Your task to perform on an android device: change timer sound Image 0: 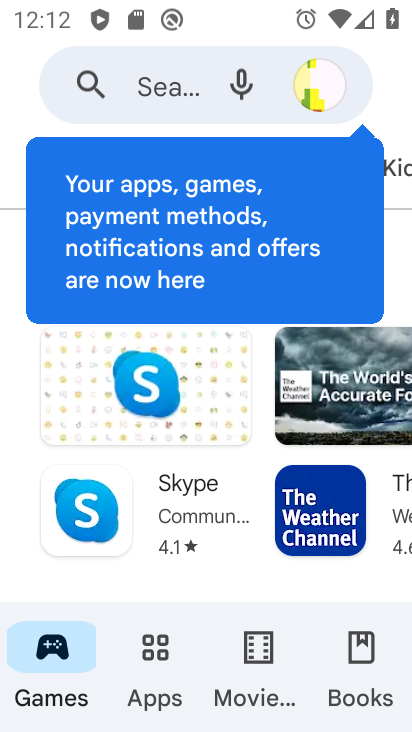
Step 0: press home button
Your task to perform on an android device: change timer sound Image 1: 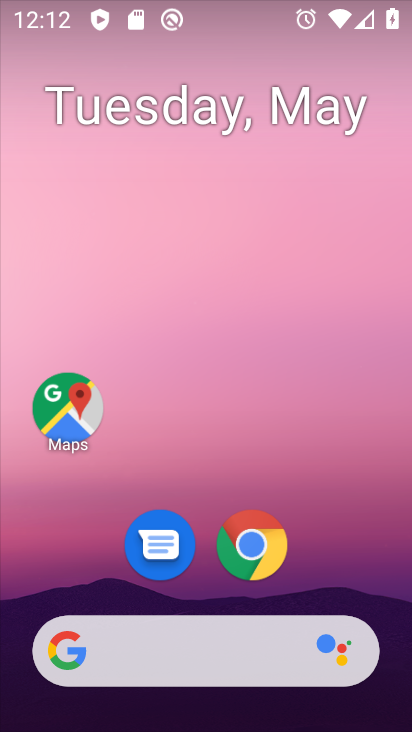
Step 1: drag from (359, 555) to (247, 145)
Your task to perform on an android device: change timer sound Image 2: 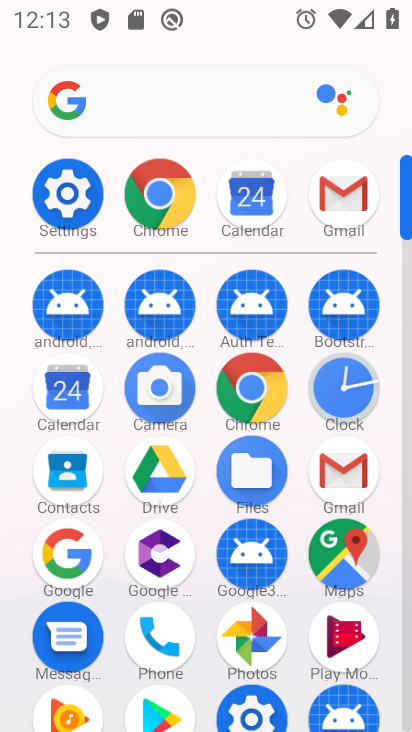
Step 2: click (338, 375)
Your task to perform on an android device: change timer sound Image 3: 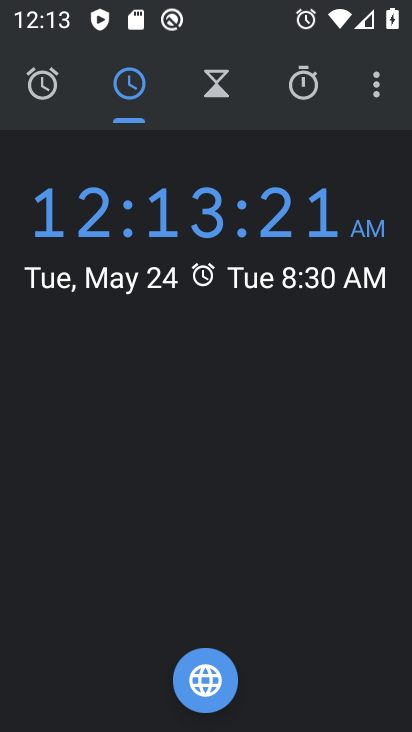
Step 3: click (366, 75)
Your task to perform on an android device: change timer sound Image 4: 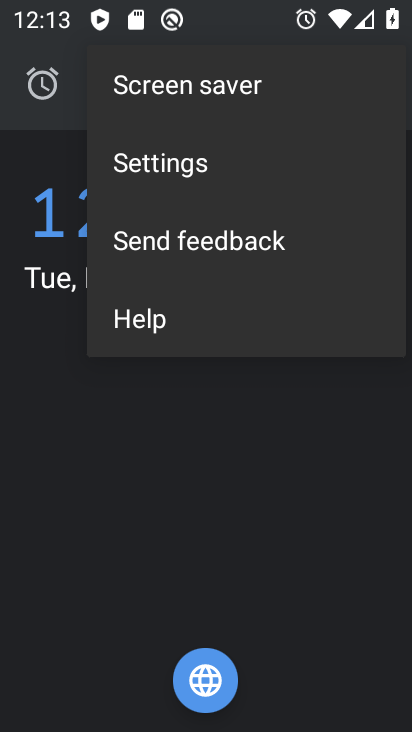
Step 4: click (282, 134)
Your task to perform on an android device: change timer sound Image 5: 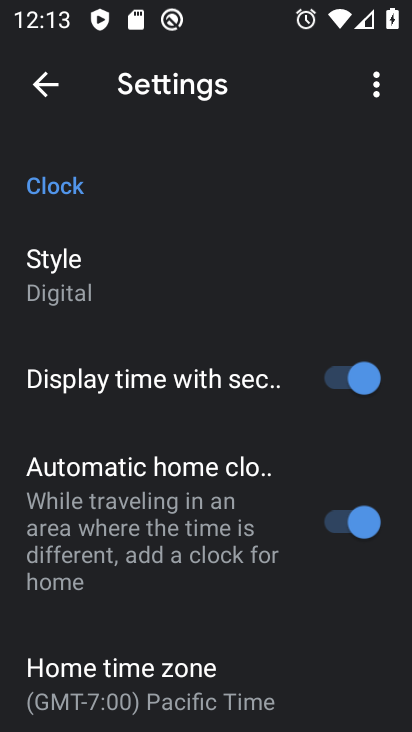
Step 5: drag from (46, 398) to (68, 180)
Your task to perform on an android device: change timer sound Image 6: 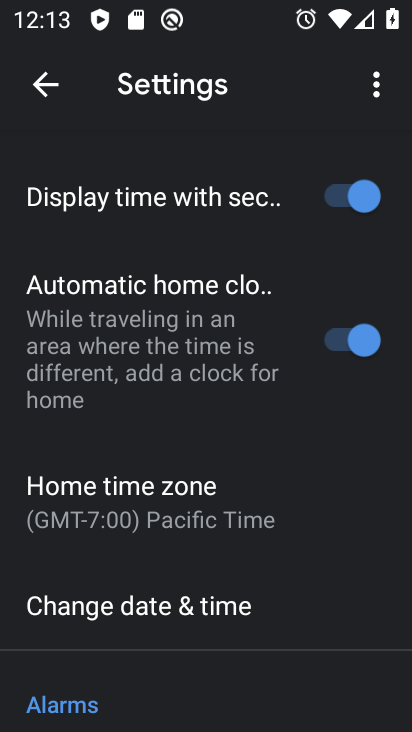
Step 6: drag from (90, 524) to (94, 323)
Your task to perform on an android device: change timer sound Image 7: 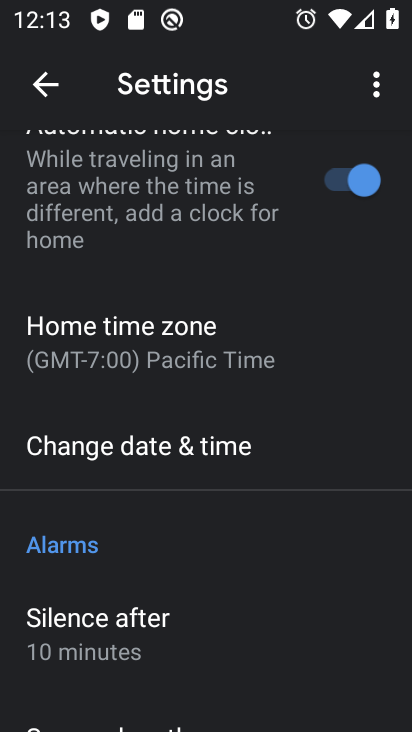
Step 7: drag from (190, 611) to (187, 209)
Your task to perform on an android device: change timer sound Image 8: 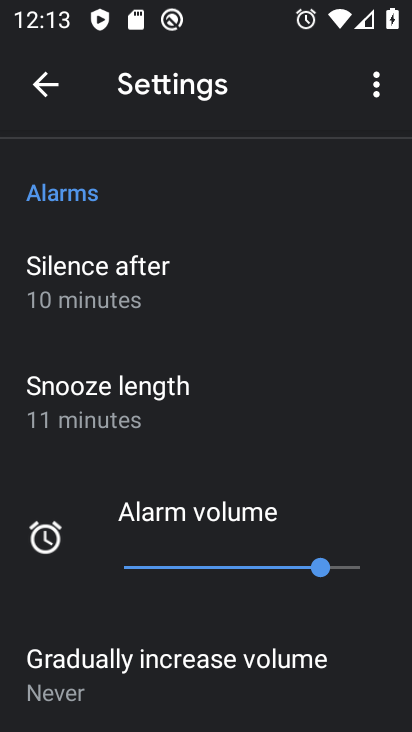
Step 8: drag from (196, 566) to (228, 271)
Your task to perform on an android device: change timer sound Image 9: 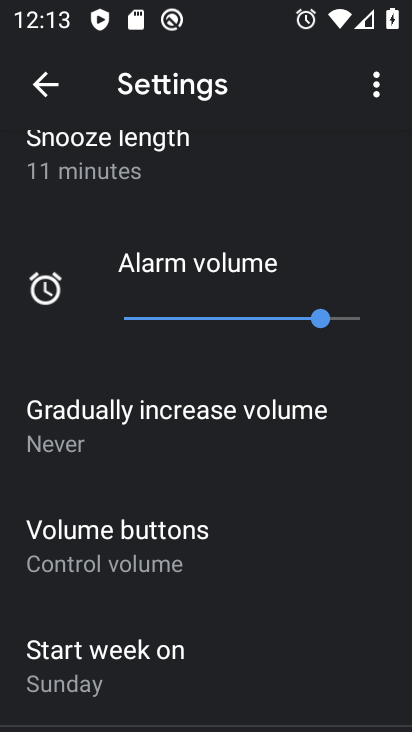
Step 9: drag from (234, 528) to (248, 221)
Your task to perform on an android device: change timer sound Image 10: 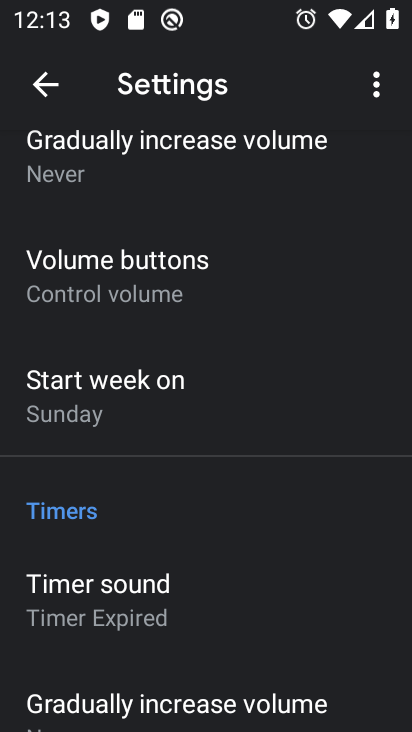
Step 10: click (217, 607)
Your task to perform on an android device: change timer sound Image 11: 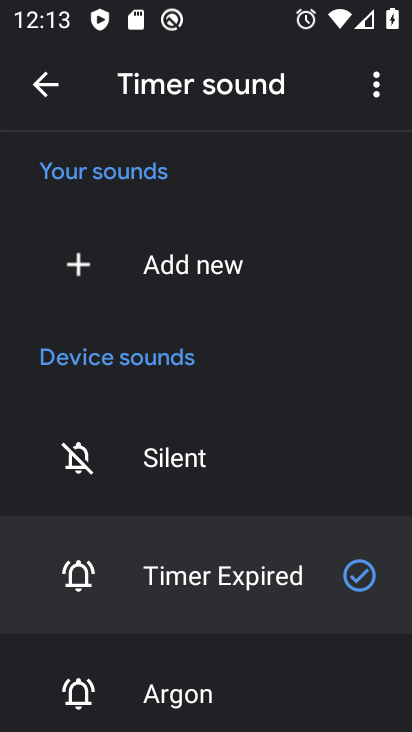
Step 11: click (191, 675)
Your task to perform on an android device: change timer sound Image 12: 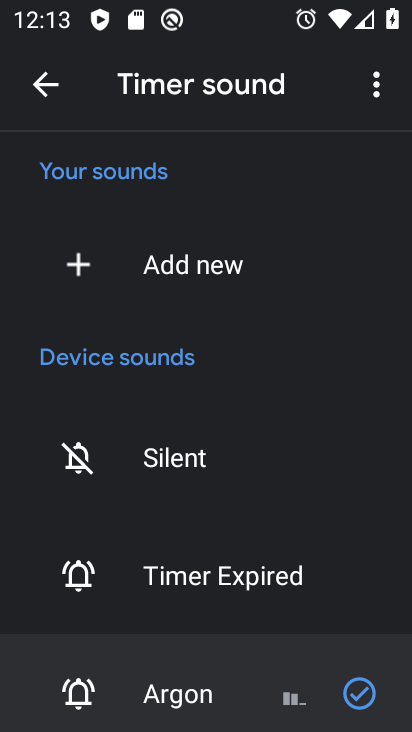
Step 12: task complete